Your task to perform on an android device: turn off improve location accuracy Image 0: 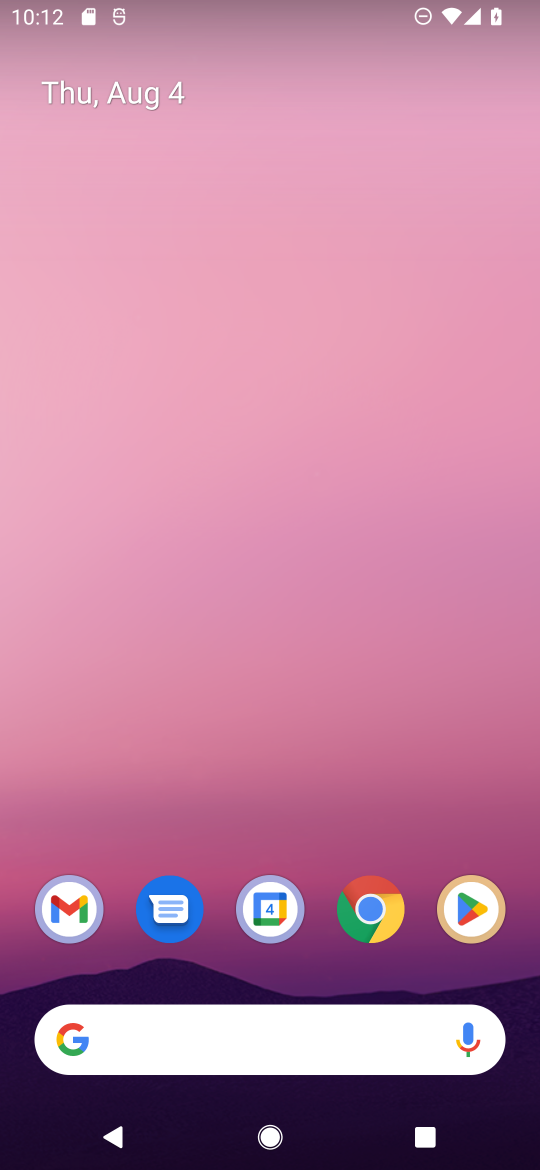
Step 0: drag from (321, 813) to (308, 5)
Your task to perform on an android device: turn off improve location accuracy Image 1: 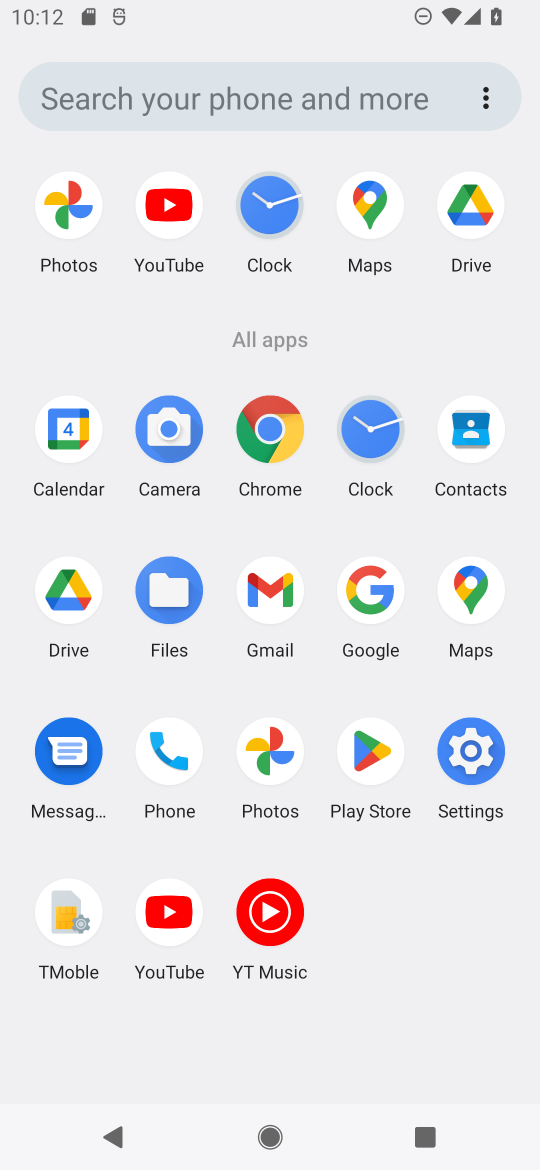
Step 1: click (469, 774)
Your task to perform on an android device: turn off improve location accuracy Image 2: 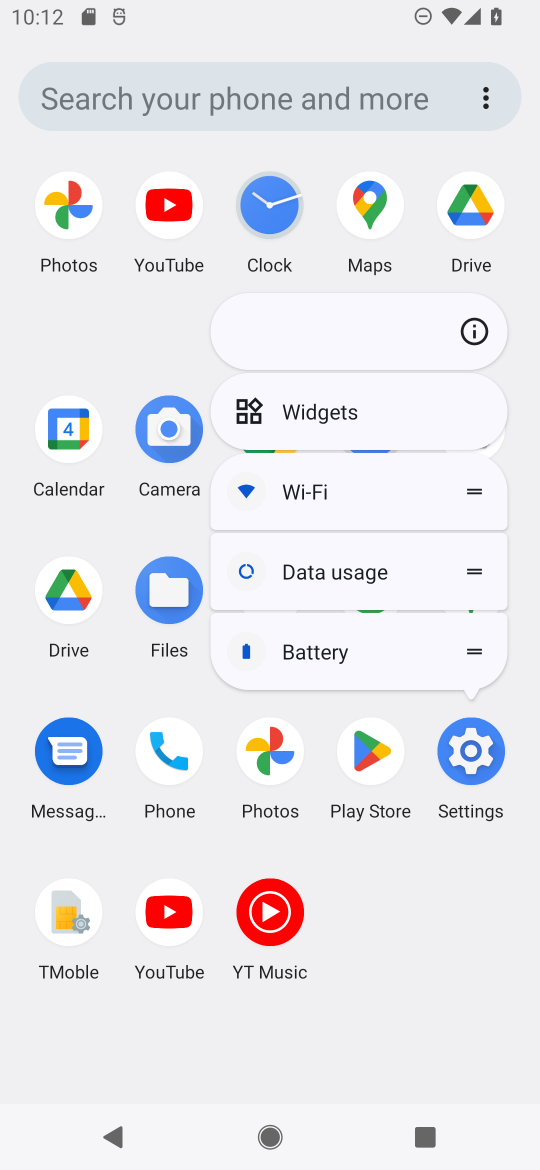
Step 2: click (469, 771)
Your task to perform on an android device: turn off improve location accuracy Image 3: 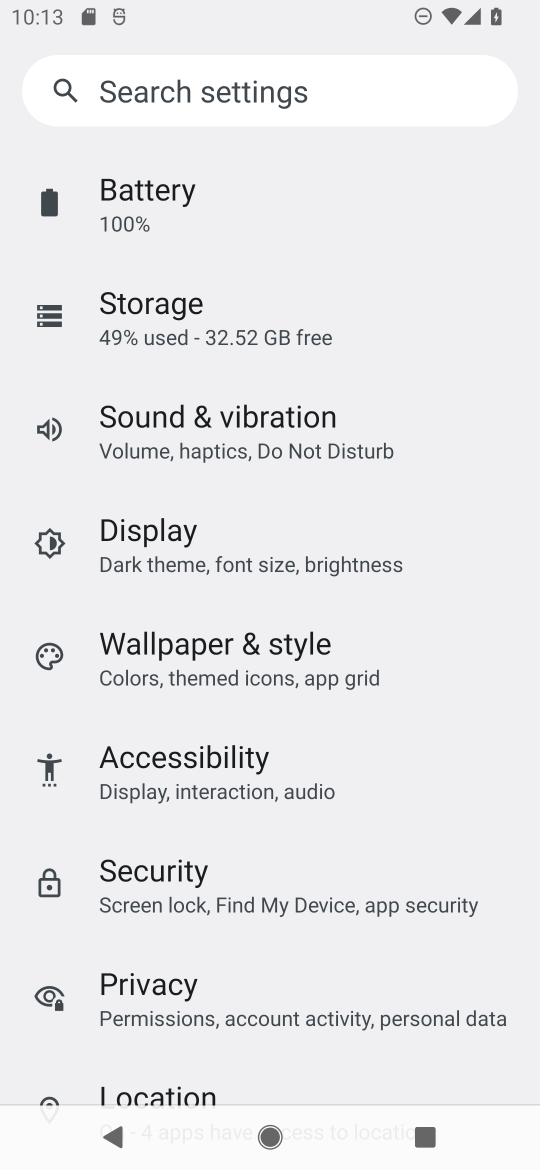
Step 3: drag from (466, 889) to (448, 532)
Your task to perform on an android device: turn off improve location accuracy Image 4: 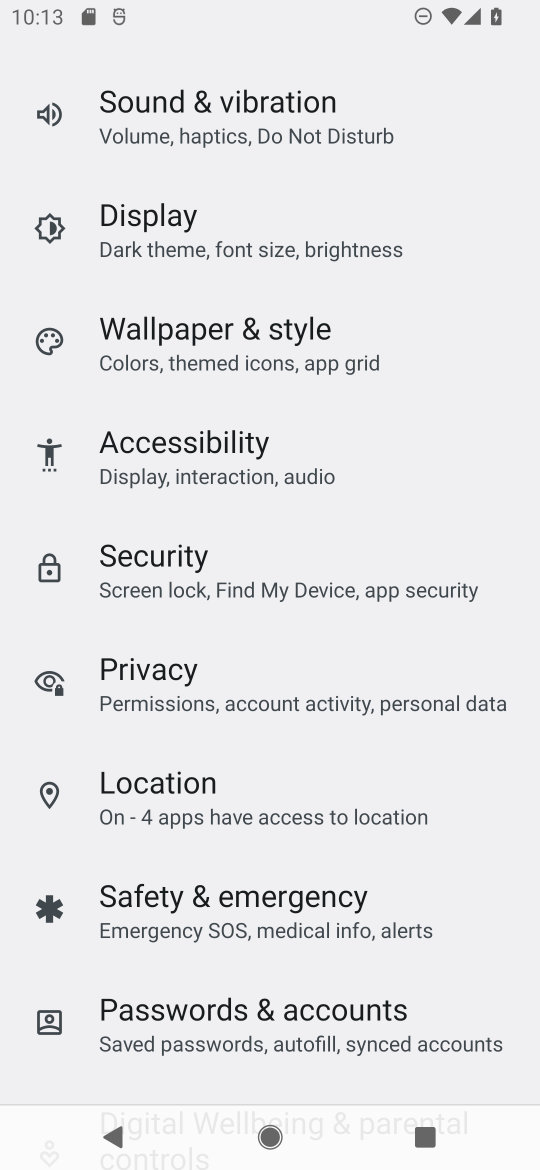
Step 4: click (144, 796)
Your task to perform on an android device: turn off improve location accuracy Image 5: 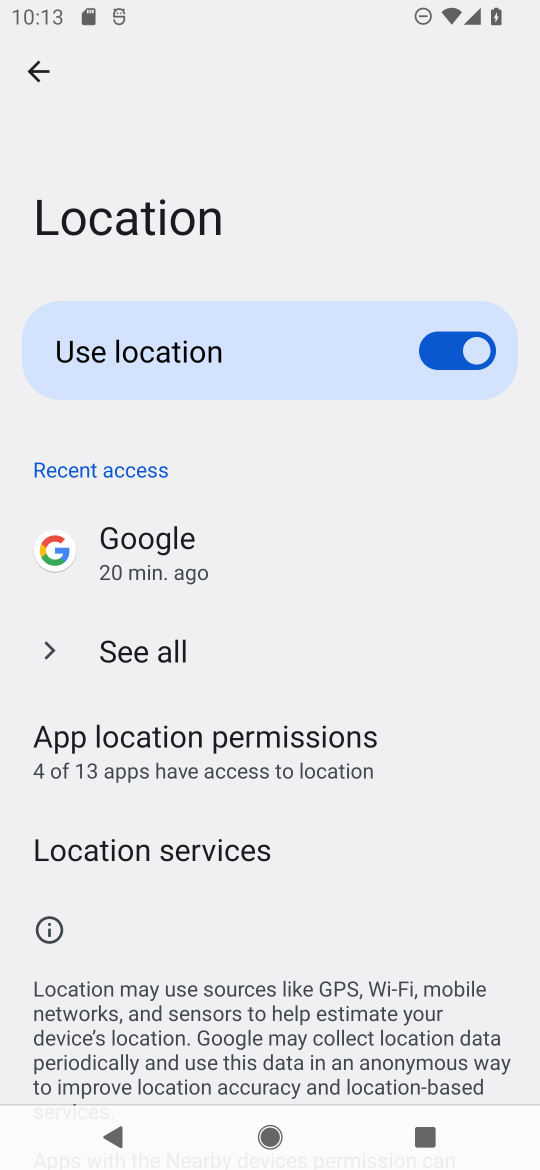
Step 5: drag from (427, 860) to (437, 470)
Your task to perform on an android device: turn off improve location accuracy Image 6: 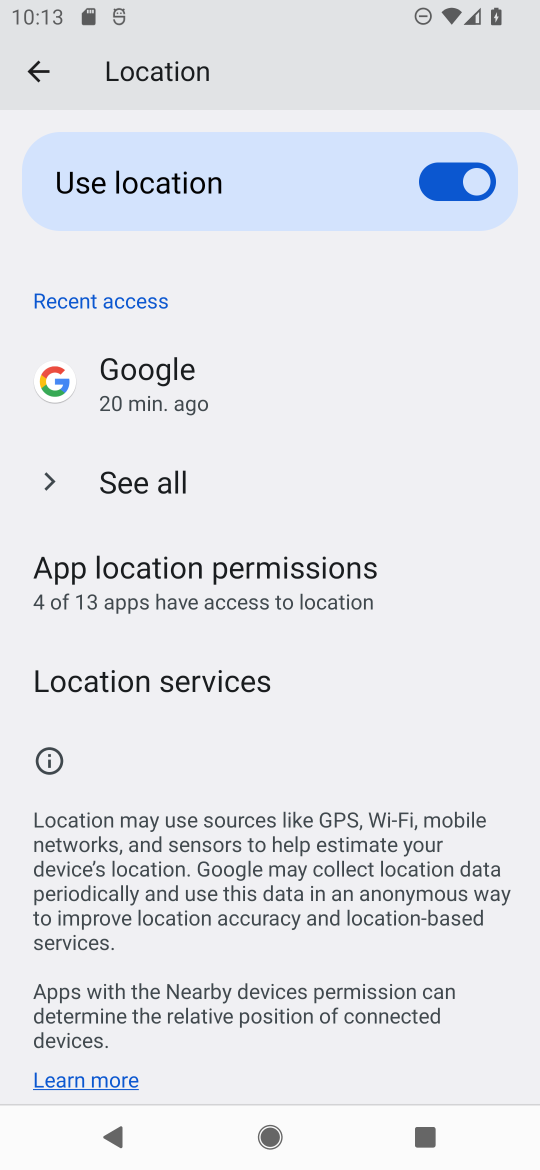
Step 6: drag from (301, 765) to (325, 519)
Your task to perform on an android device: turn off improve location accuracy Image 7: 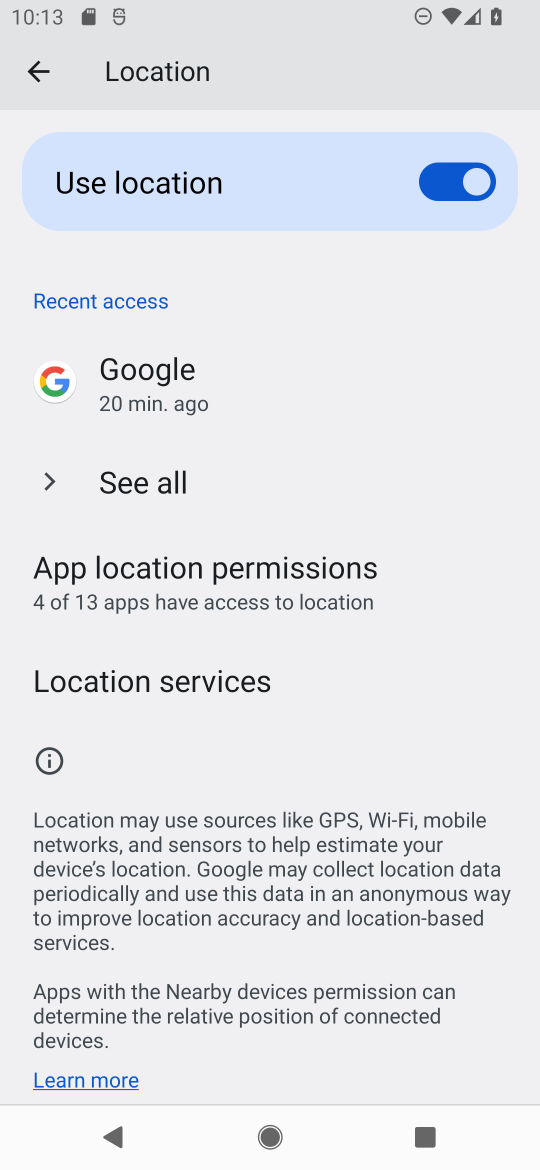
Step 7: click (141, 680)
Your task to perform on an android device: turn off improve location accuracy Image 8: 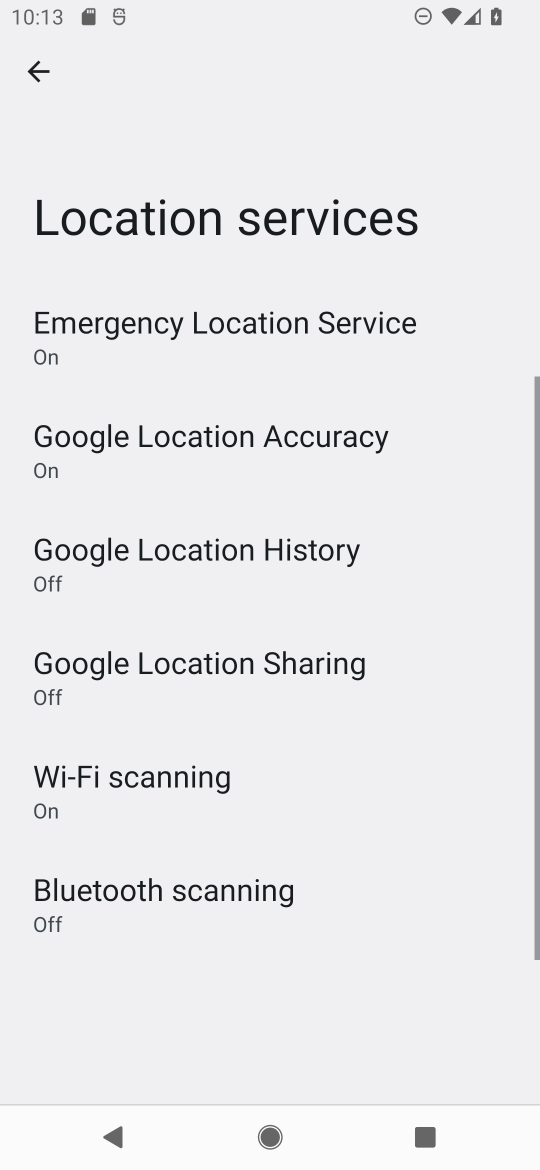
Step 8: click (165, 442)
Your task to perform on an android device: turn off improve location accuracy Image 9: 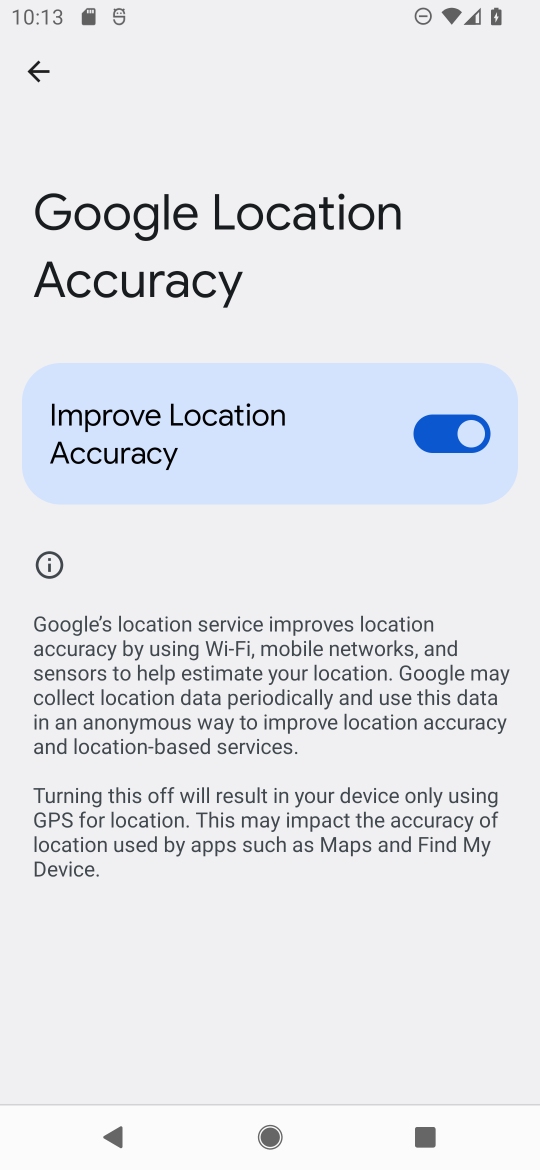
Step 9: click (440, 429)
Your task to perform on an android device: turn off improve location accuracy Image 10: 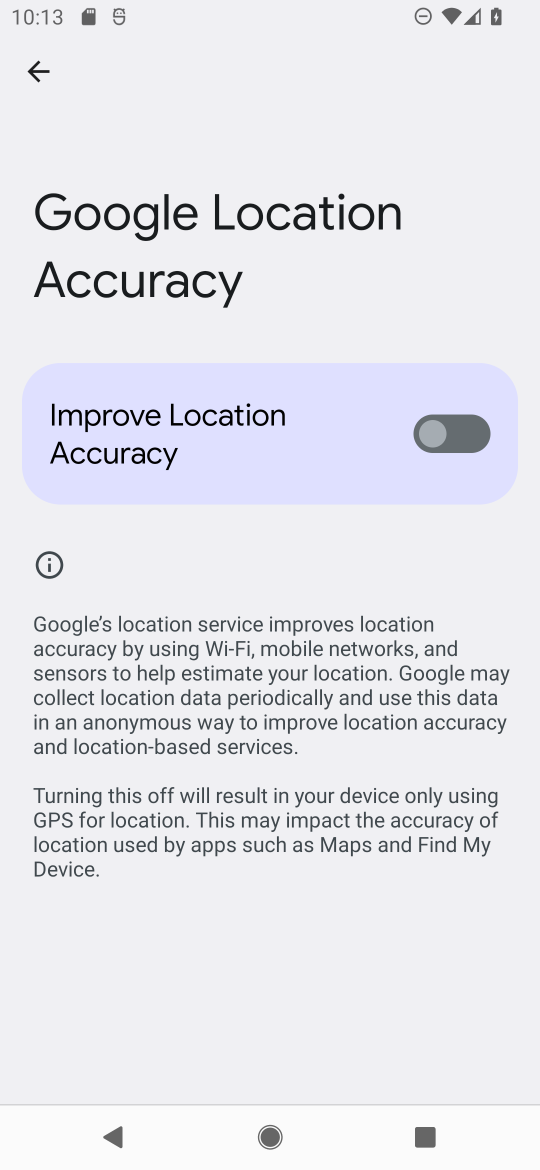
Step 10: task complete